Your task to perform on an android device: change the clock display to digital Image 0: 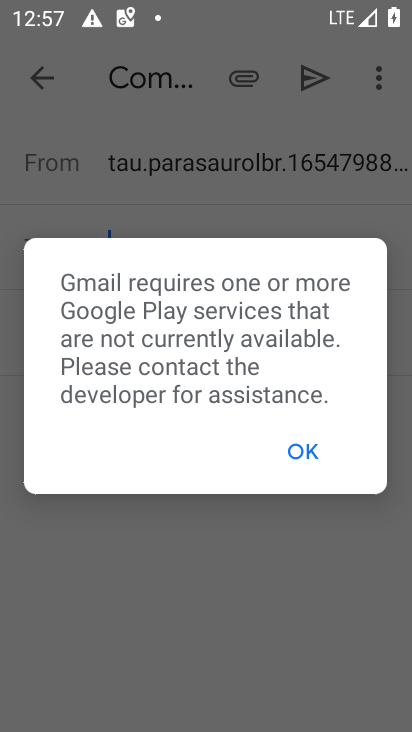
Step 0: press home button
Your task to perform on an android device: change the clock display to digital Image 1: 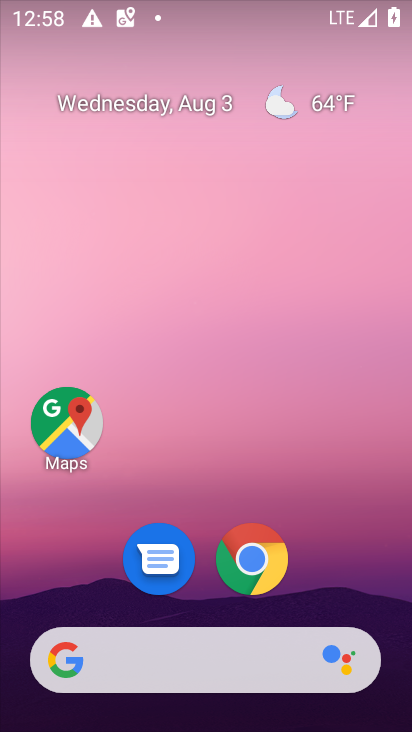
Step 1: drag from (207, 615) to (194, 109)
Your task to perform on an android device: change the clock display to digital Image 2: 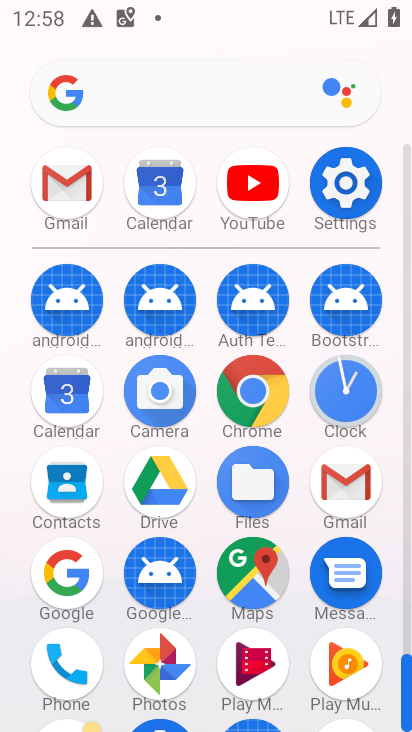
Step 2: click (342, 386)
Your task to perform on an android device: change the clock display to digital Image 3: 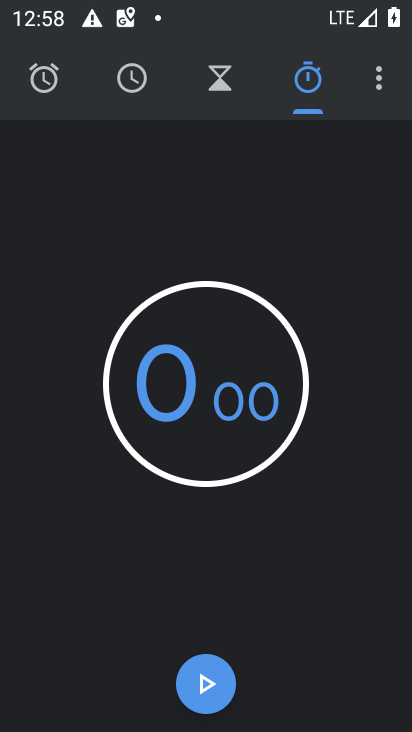
Step 3: click (381, 92)
Your task to perform on an android device: change the clock display to digital Image 4: 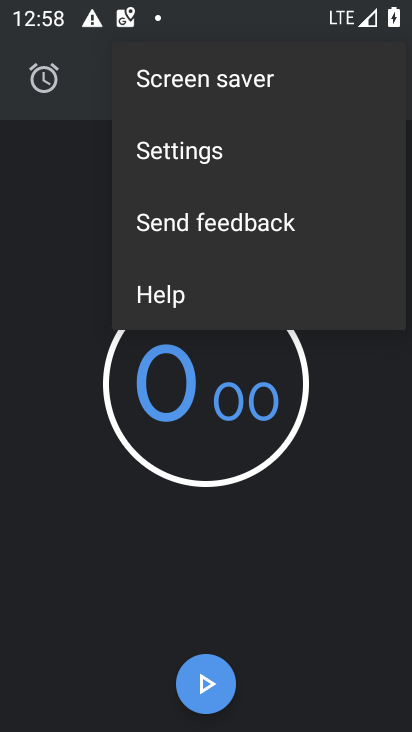
Step 4: click (193, 147)
Your task to perform on an android device: change the clock display to digital Image 5: 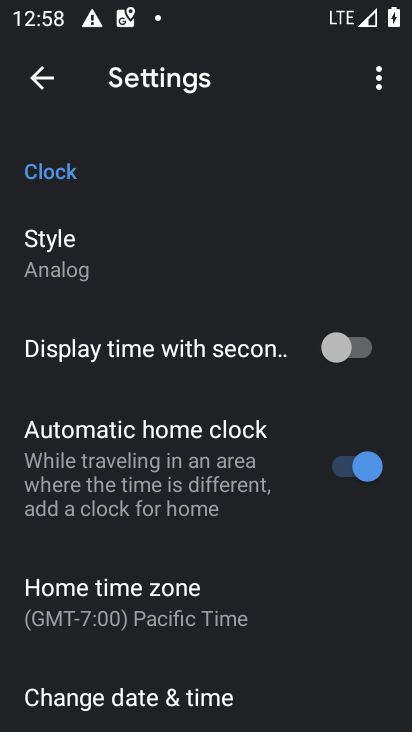
Step 5: click (64, 261)
Your task to perform on an android device: change the clock display to digital Image 6: 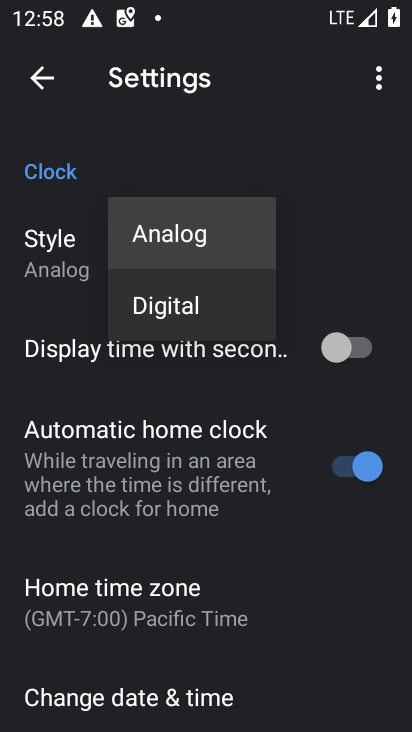
Step 6: click (156, 309)
Your task to perform on an android device: change the clock display to digital Image 7: 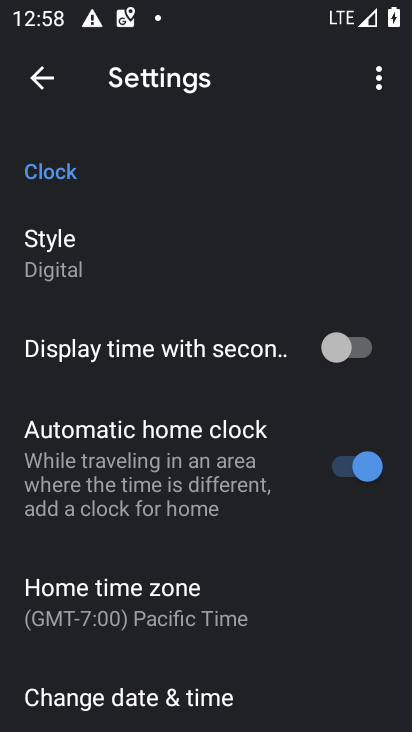
Step 7: task complete